Your task to perform on an android device: open chrome privacy settings Image 0: 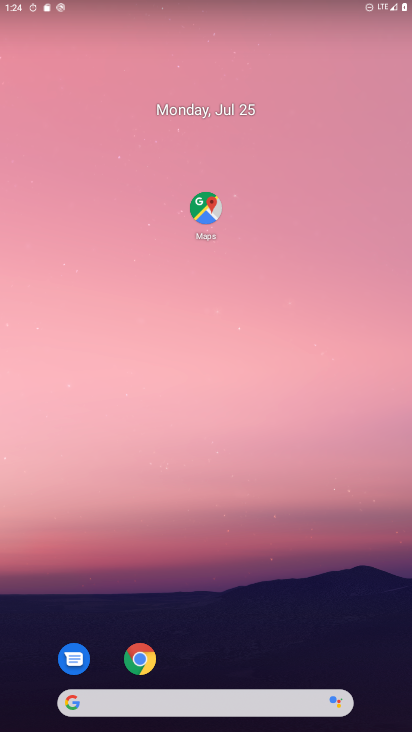
Step 0: drag from (16, 685) to (327, 11)
Your task to perform on an android device: open chrome privacy settings Image 1: 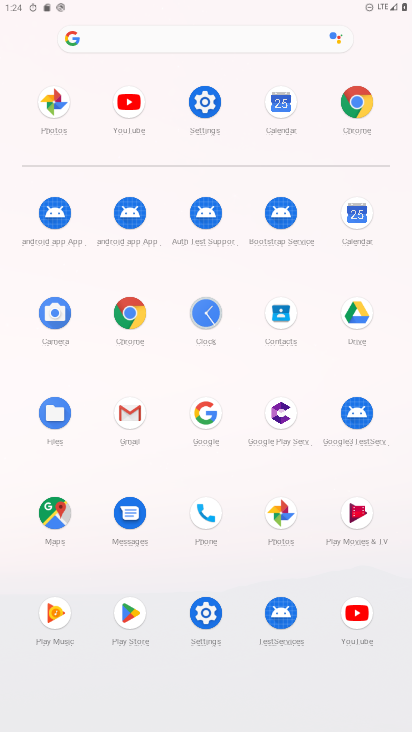
Step 1: click (138, 316)
Your task to perform on an android device: open chrome privacy settings Image 2: 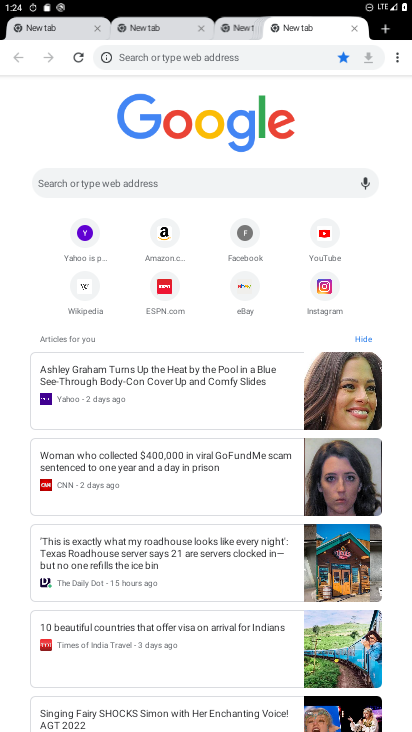
Step 2: click (400, 54)
Your task to perform on an android device: open chrome privacy settings Image 3: 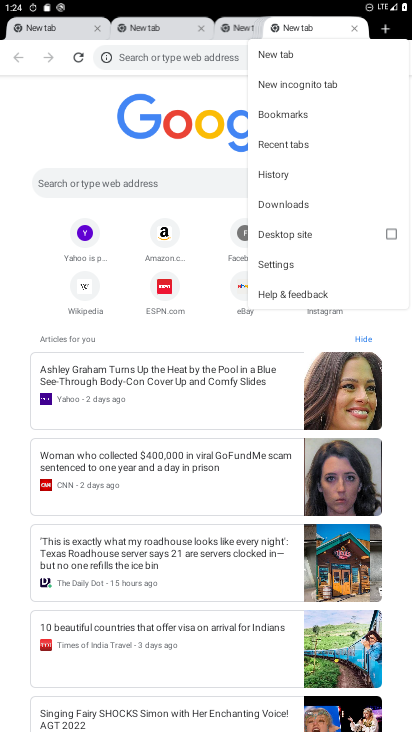
Step 3: click (285, 261)
Your task to perform on an android device: open chrome privacy settings Image 4: 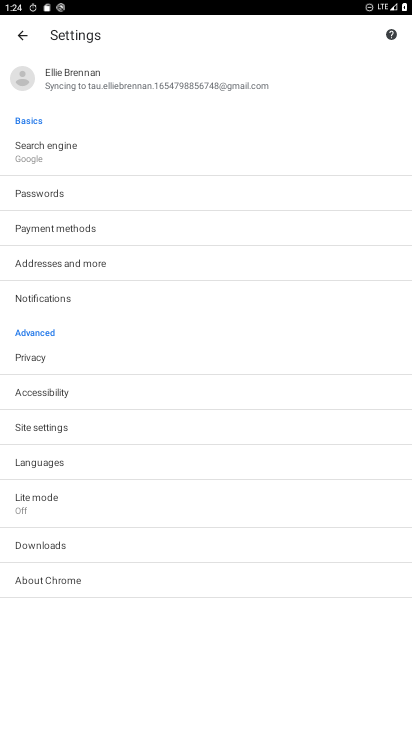
Step 4: click (39, 358)
Your task to perform on an android device: open chrome privacy settings Image 5: 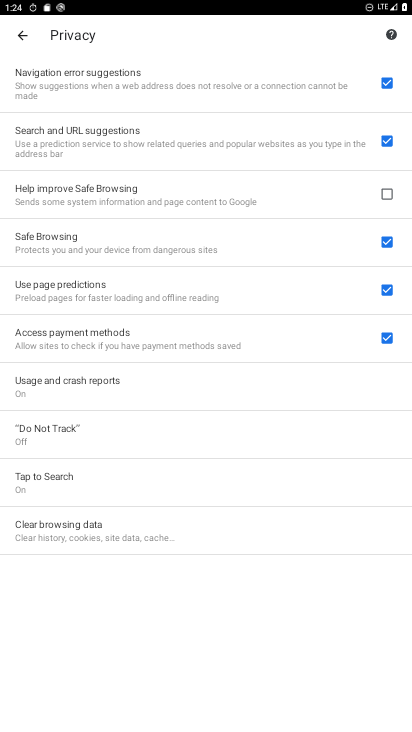
Step 5: task complete